Your task to perform on an android device: add a contact in the contacts app Image 0: 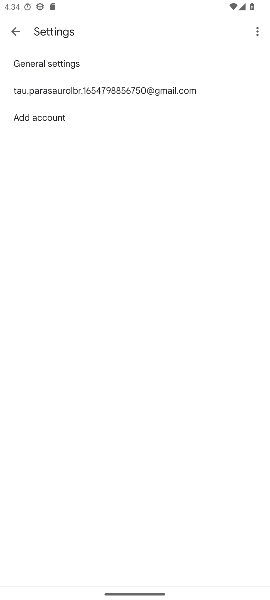
Step 0: press home button
Your task to perform on an android device: add a contact in the contacts app Image 1: 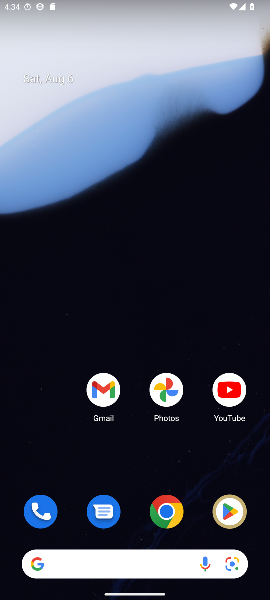
Step 1: drag from (117, 465) to (132, 194)
Your task to perform on an android device: add a contact in the contacts app Image 2: 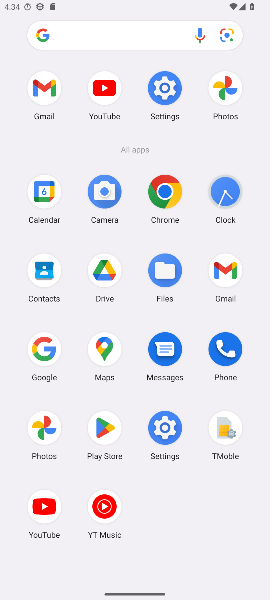
Step 2: click (44, 289)
Your task to perform on an android device: add a contact in the contacts app Image 3: 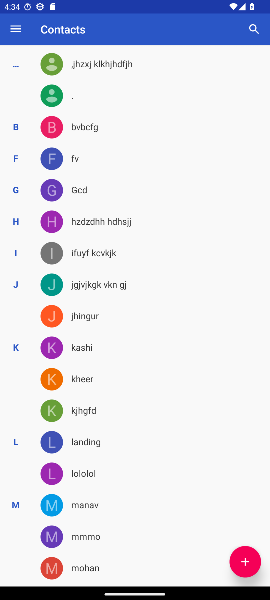
Step 3: click (249, 558)
Your task to perform on an android device: add a contact in the contacts app Image 4: 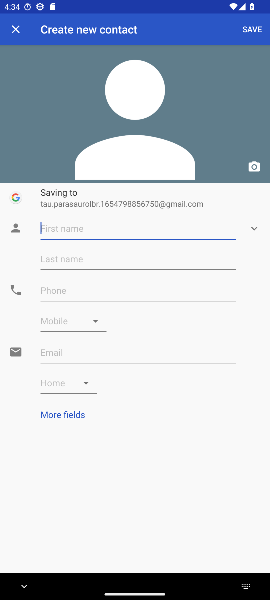
Step 4: type "ghamora"
Your task to perform on an android device: add a contact in the contacts app Image 5: 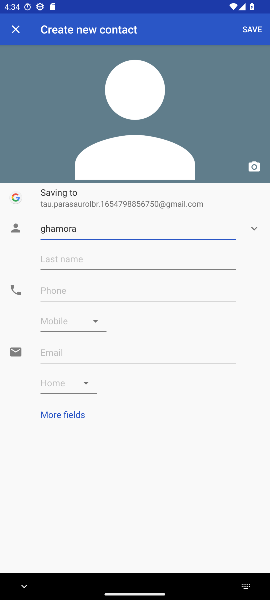
Step 5: click (253, 33)
Your task to perform on an android device: add a contact in the contacts app Image 6: 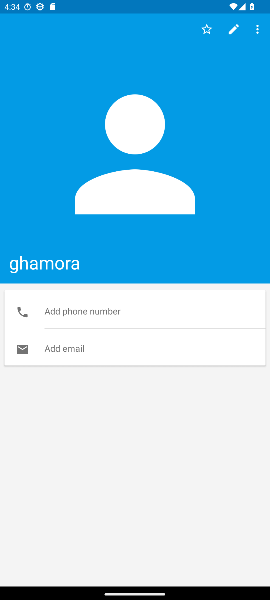
Step 6: task complete